Your task to perform on an android device: Check the news Image 0: 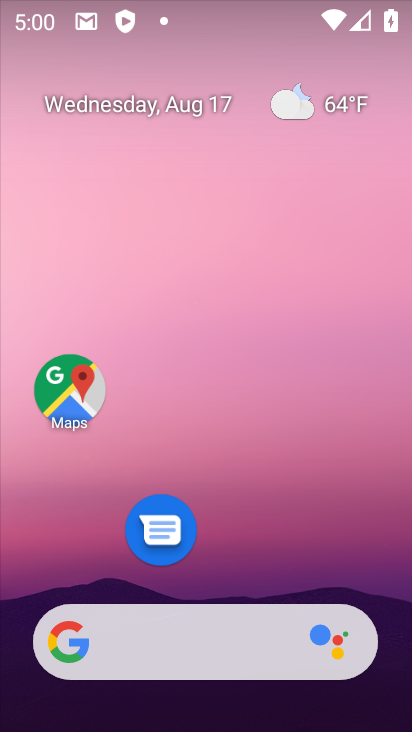
Step 0: drag from (204, 587) to (216, 159)
Your task to perform on an android device: Check the news Image 1: 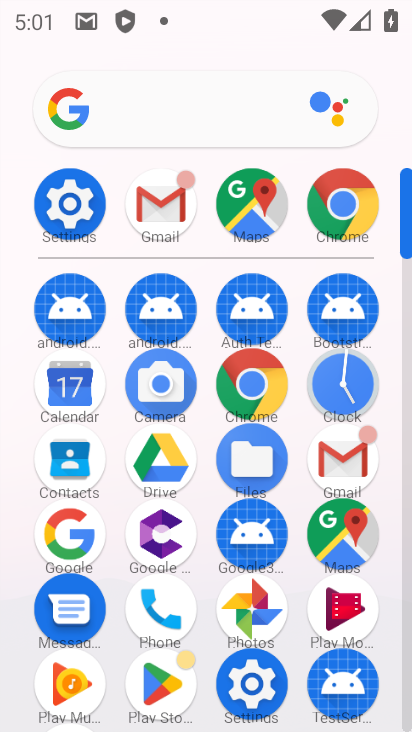
Step 1: click (71, 537)
Your task to perform on an android device: Check the news Image 2: 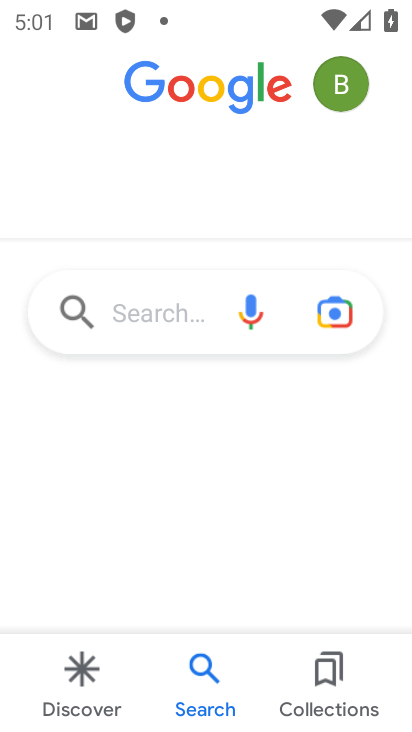
Step 2: click (156, 311)
Your task to perform on an android device: Check the news Image 3: 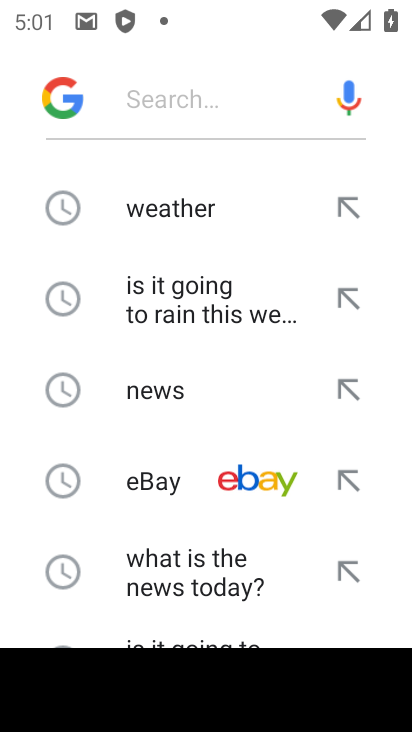
Step 3: click (144, 393)
Your task to perform on an android device: Check the news Image 4: 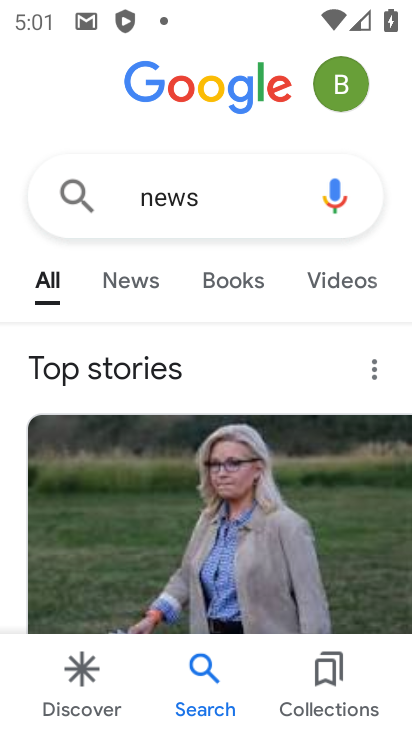
Step 4: task complete